Your task to perform on an android device: turn pop-ups off in chrome Image 0: 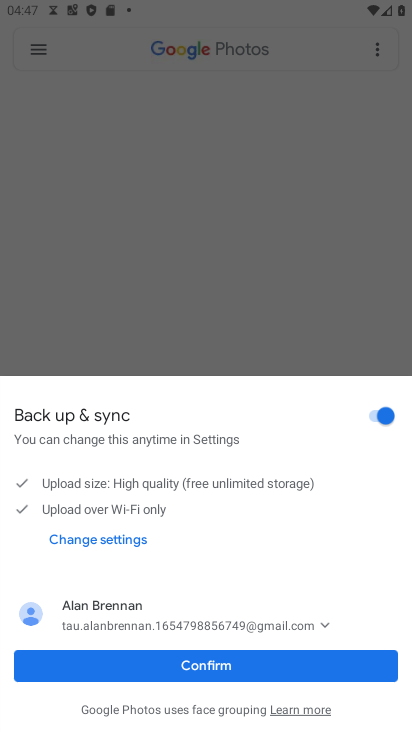
Step 0: press home button
Your task to perform on an android device: turn pop-ups off in chrome Image 1: 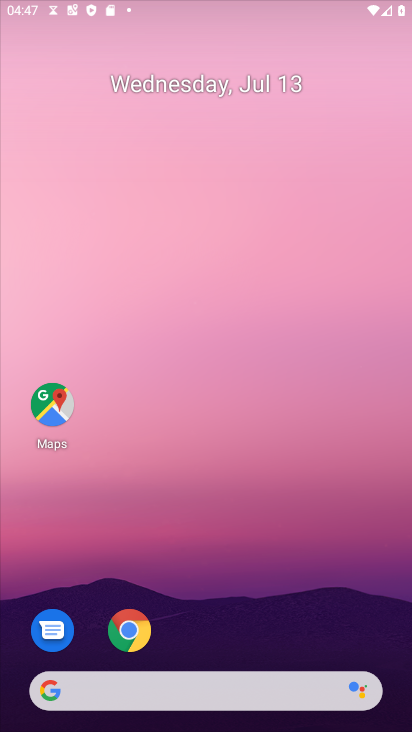
Step 1: drag from (330, 632) to (400, 532)
Your task to perform on an android device: turn pop-ups off in chrome Image 2: 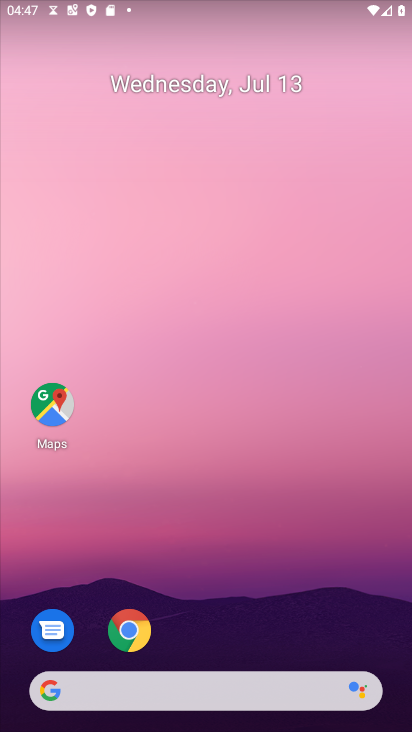
Step 2: click (129, 366)
Your task to perform on an android device: turn pop-ups off in chrome Image 3: 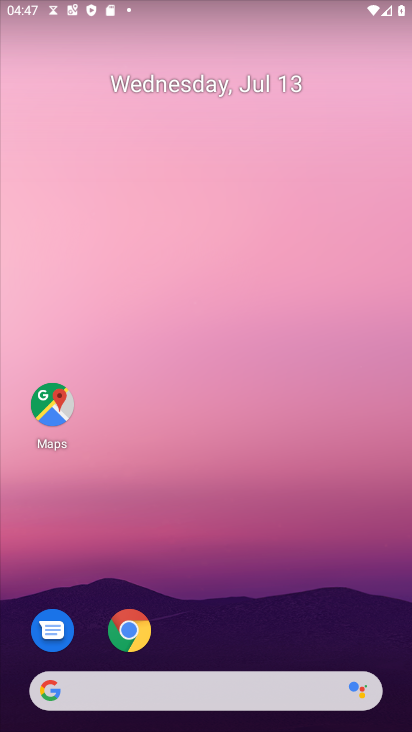
Step 3: drag from (241, 610) to (295, 1)
Your task to perform on an android device: turn pop-ups off in chrome Image 4: 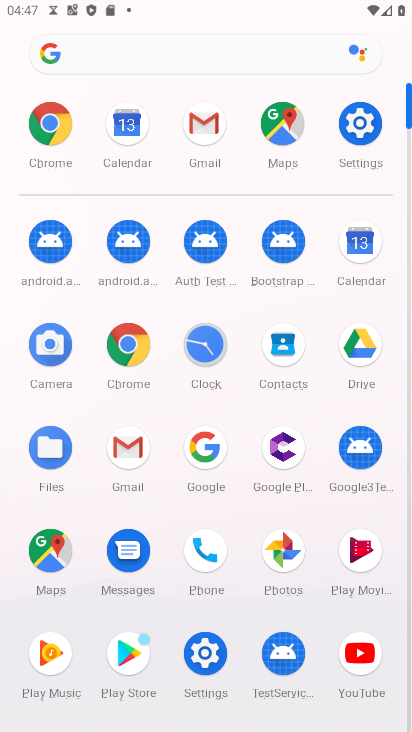
Step 4: click (113, 345)
Your task to perform on an android device: turn pop-ups off in chrome Image 5: 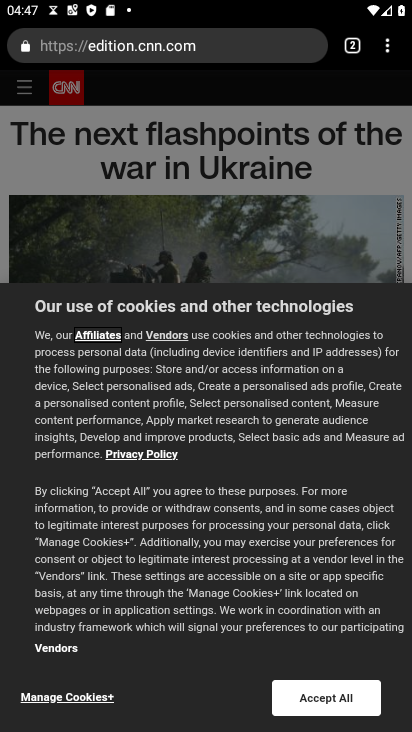
Step 5: drag from (382, 46) to (257, 501)
Your task to perform on an android device: turn pop-ups off in chrome Image 6: 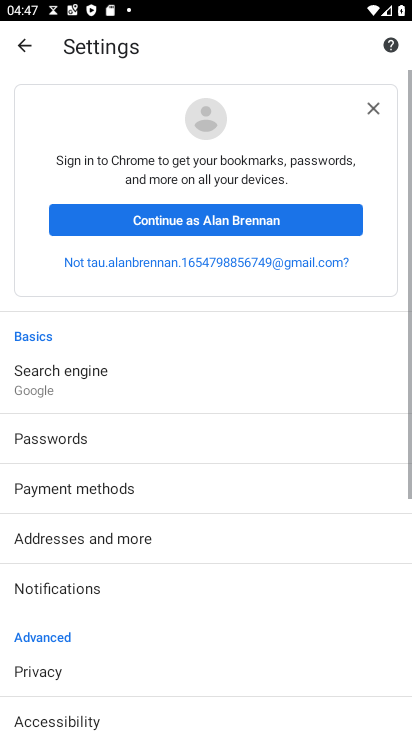
Step 6: drag from (144, 629) to (210, 171)
Your task to perform on an android device: turn pop-ups off in chrome Image 7: 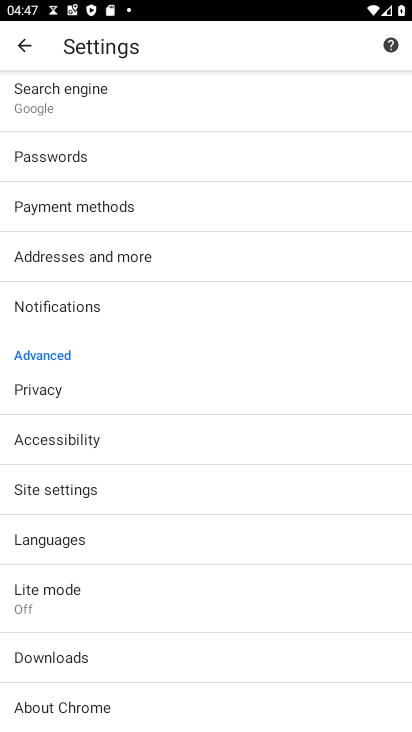
Step 7: click (87, 493)
Your task to perform on an android device: turn pop-ups off in chrome Image 8: 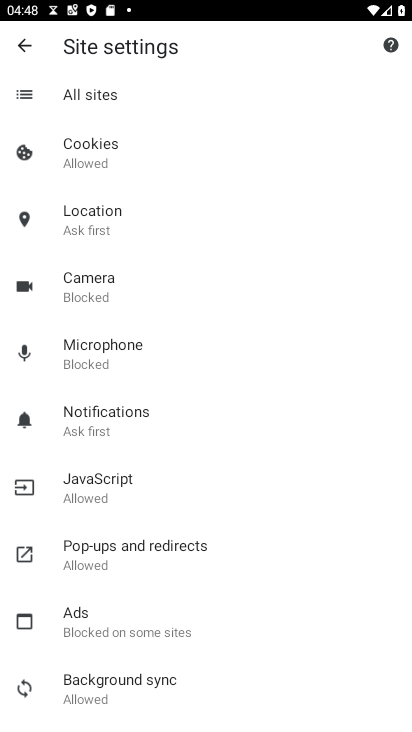
Step 8: click (115, 554)
Your task to perform on an android device: turn pop-ups off in chrome Image 9: 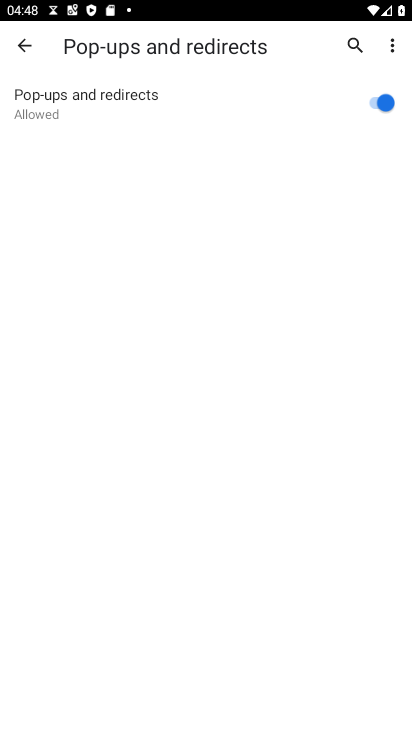
Step 9: click (383, 105)
Your task to perform on an android device: turn pop-ups off in chrome Image 10: 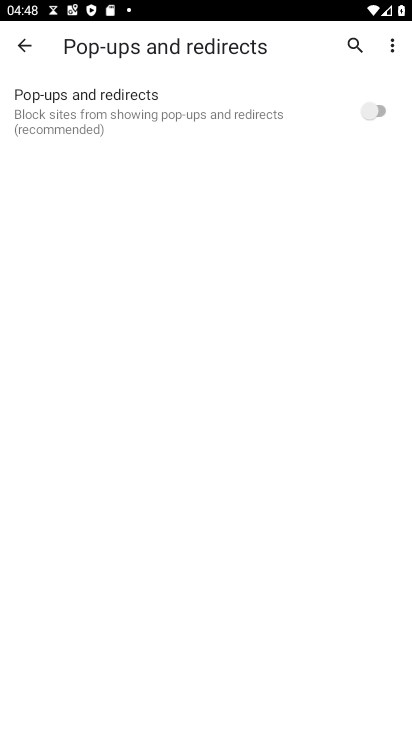
Step 10: task complete